Your task to perform on an android device: Turn on the flashlight Image 0: 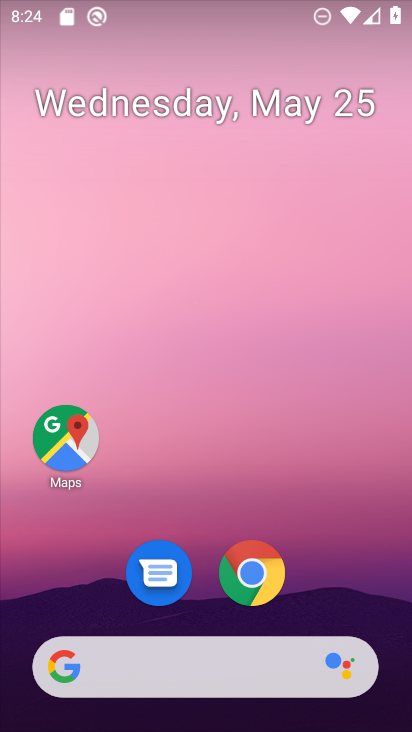
Step 0: drag from (397, 674) to (359, 208)
Your task to perform on an android device: Turn on the flashlight Image 1: 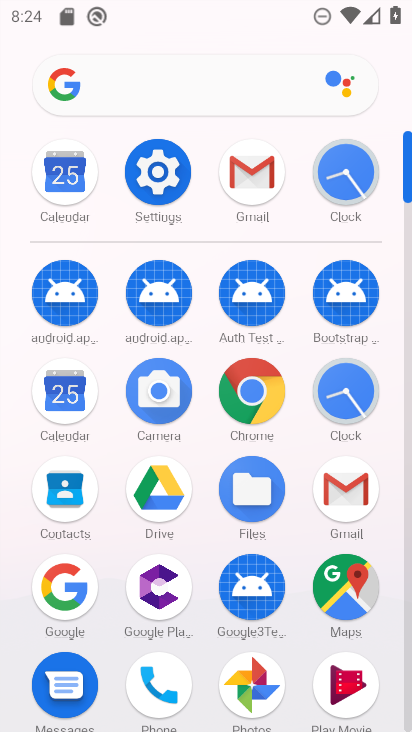
Step 1: click (161, 180)
Your task to perform on an android device: Turn on the flashlight Image 2: 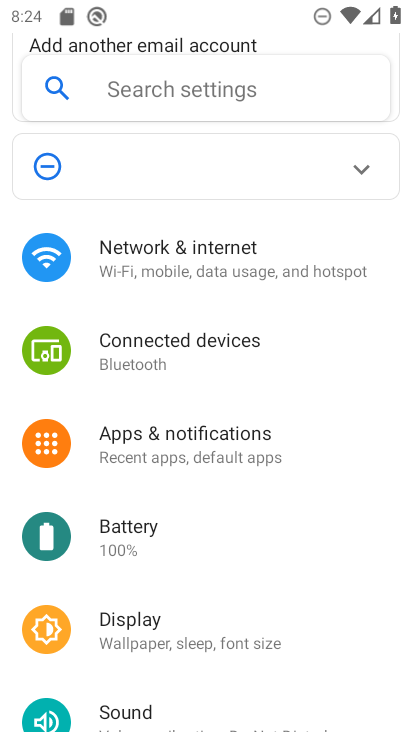
Step 2: click (126, 619)
Your task to perform on an android device: Turn on the flashlight Image 3: 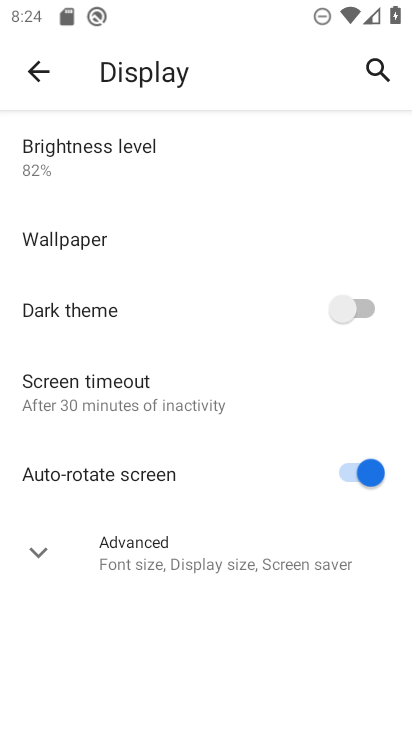
Step 3: task complete